Your task to perform on an android device: Open Maps and search for coffee Image 0: 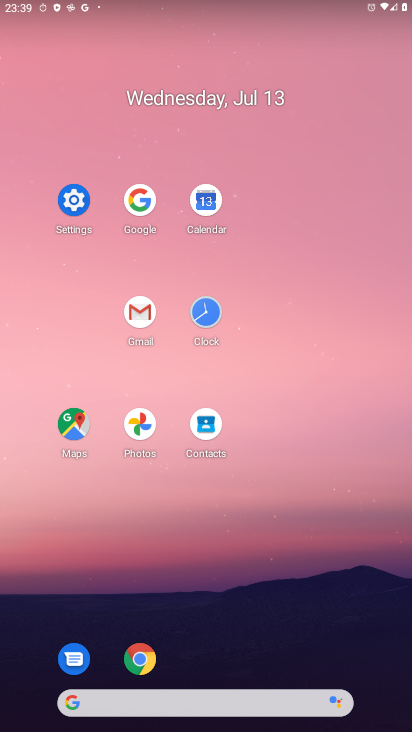
Step 0: click (79, 400)
Your task to perform on an android device: Open Maps and search for coffee Image 1: 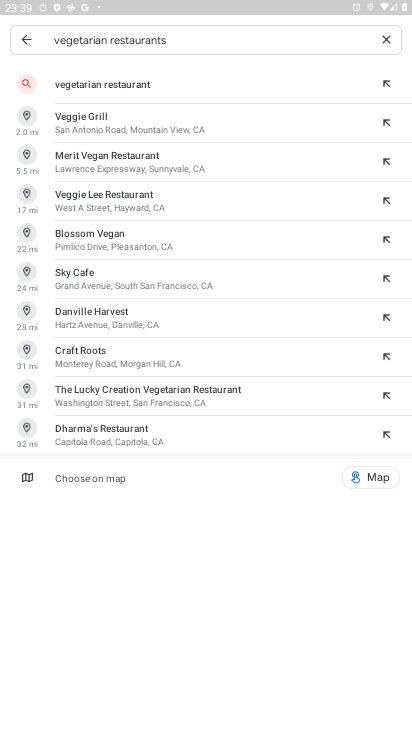
Step 1: click (385, 31)
Your task to perform on an android device: Open Maps and search for coffee Image 2: 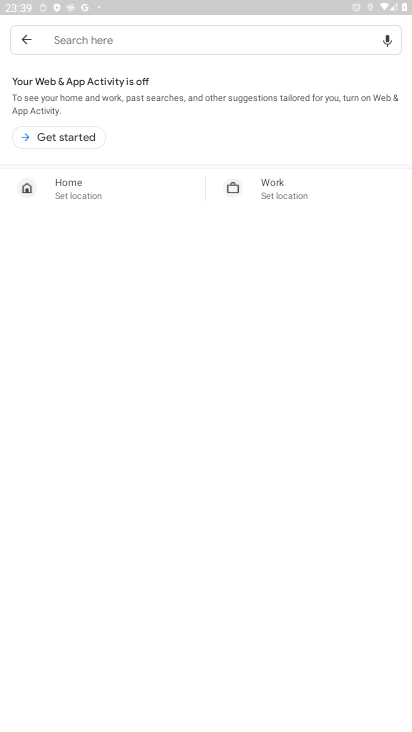
Step 2: click (170, 40)
Your task to perform on an android device: Open Maps and search for coffee Image 3: 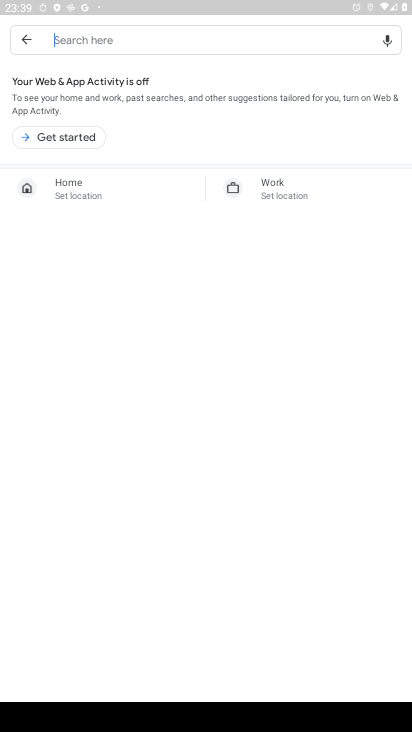
Step 3: type "coffee"
Your task to perform on an android device: Open Maps and search for coffee Image 4: 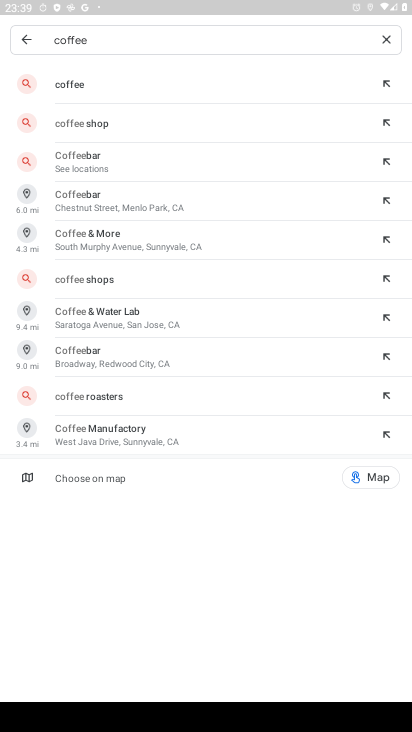
Step 4: click (190, 74)
Your task to perform on an android device: Open Maps and search for coffee Image 5: 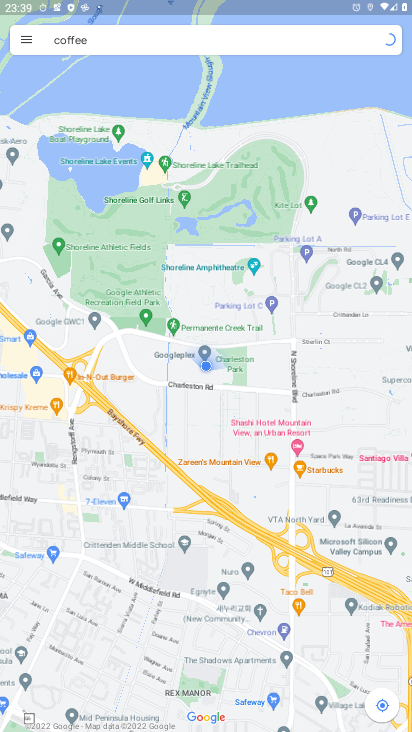
Step 5: task complete